Your task to perform on an android device: Go to battery settings Image 0: 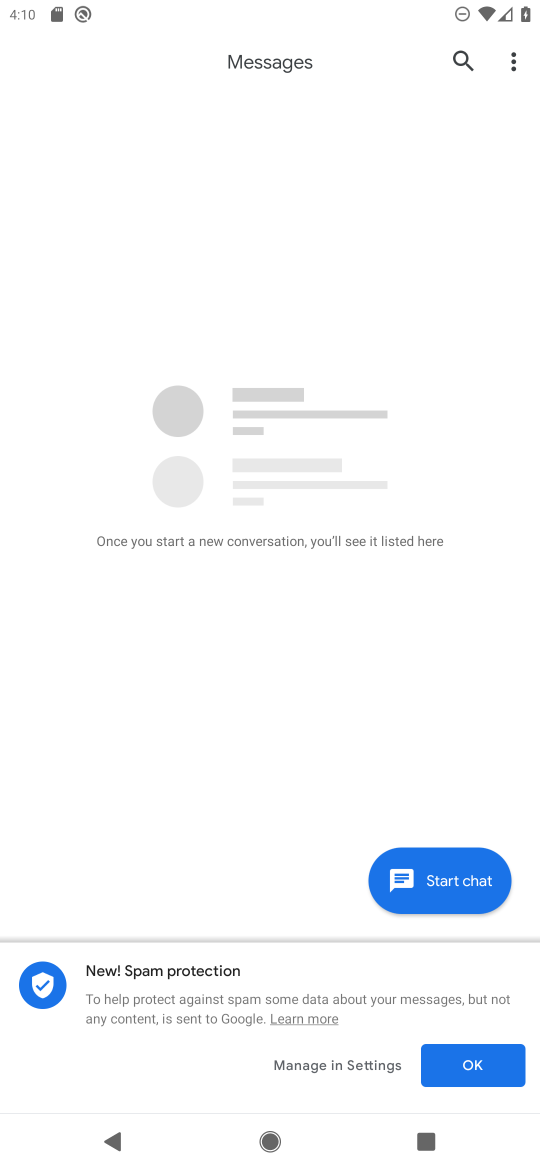
Step 0: press home button
Your task to perform on an android device: Go to battery settings Image 1: 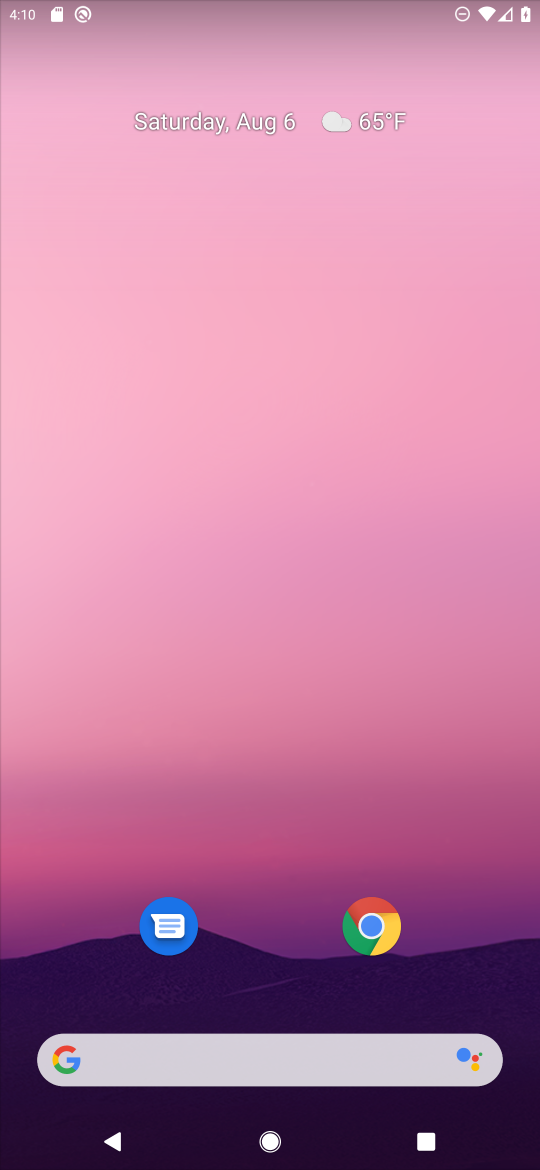
Step 1: drag from (262, 955) to (267, 361)
Your task to perform on an android device: Go to battery settings Image 2: 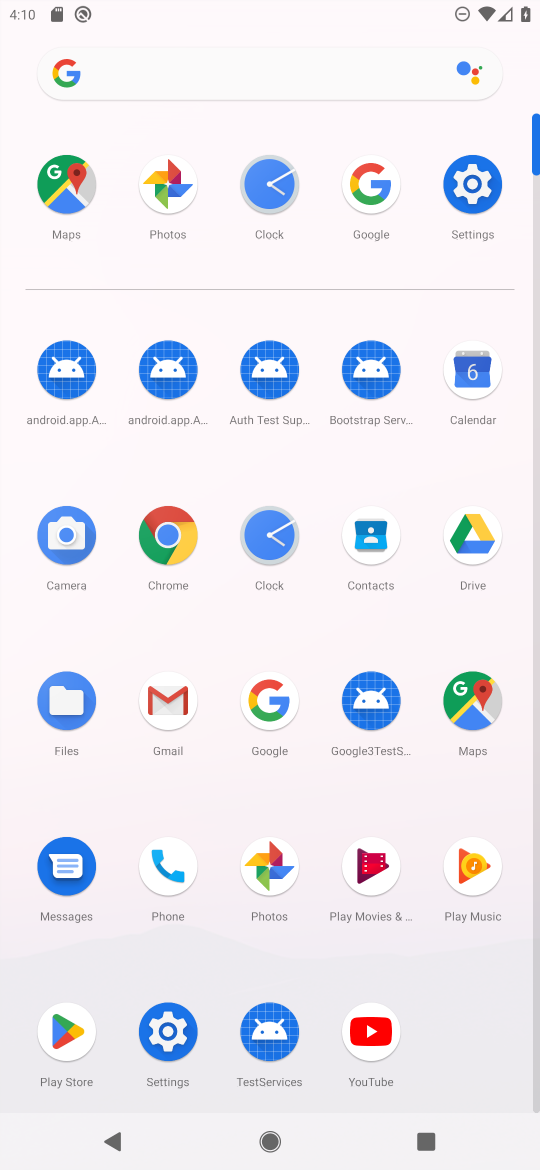
Step 2: click (462, 189)
Your task to perform on an android device: Go to battery settings Image 3: 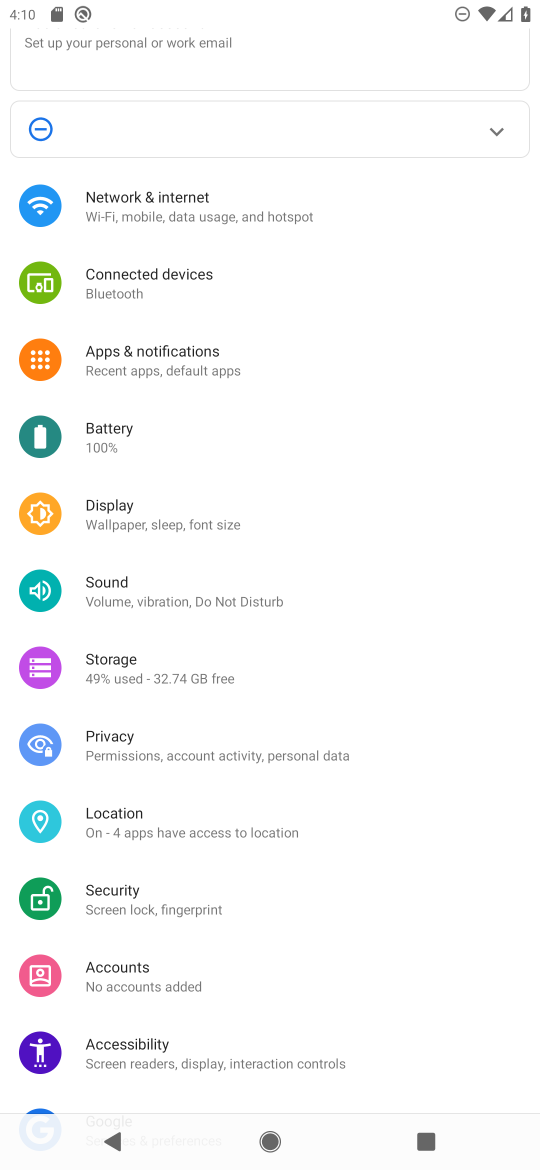
Step 3: click (161, 453)
Your task to perform on an android device: Go to battery settings Image 4: 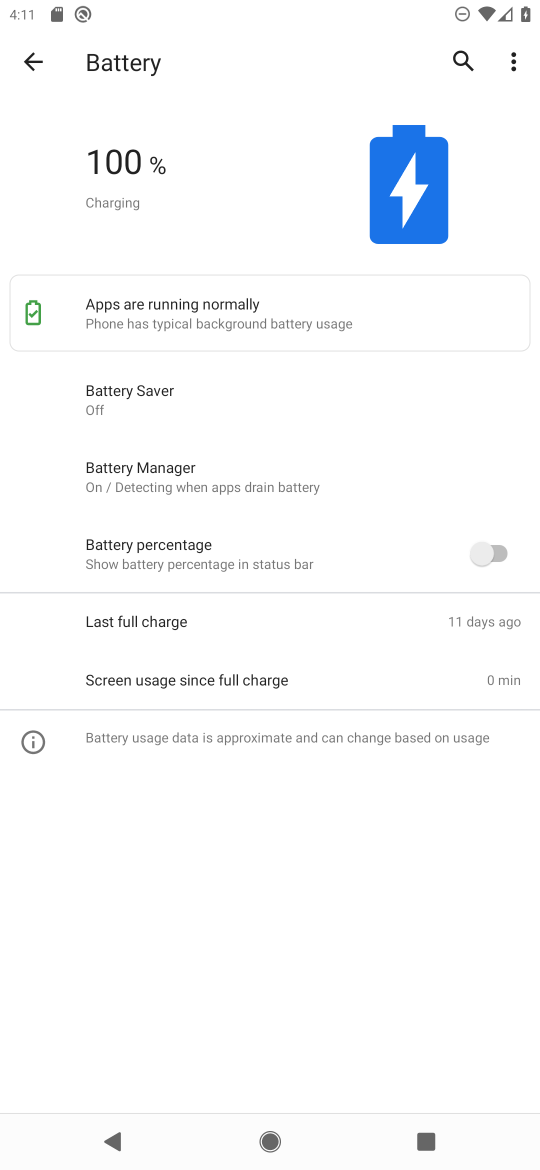
Step 4: task complete